Your task to perform on an android device: Open location settings Image 0: 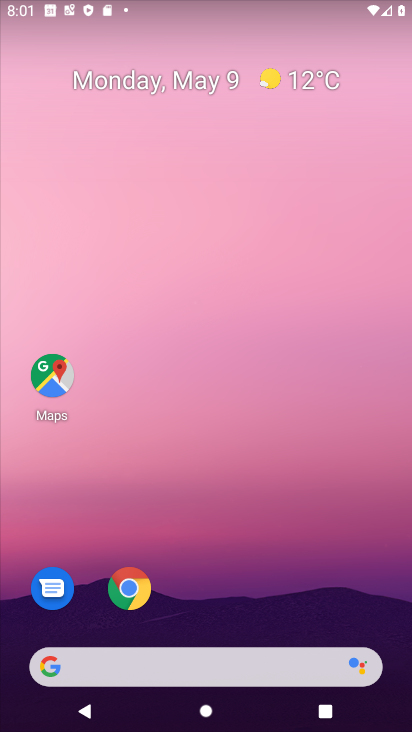
Step 0: drag from (185, 667) to (352, 83)
Your task to perform on an android device: Open location settings Image 1: 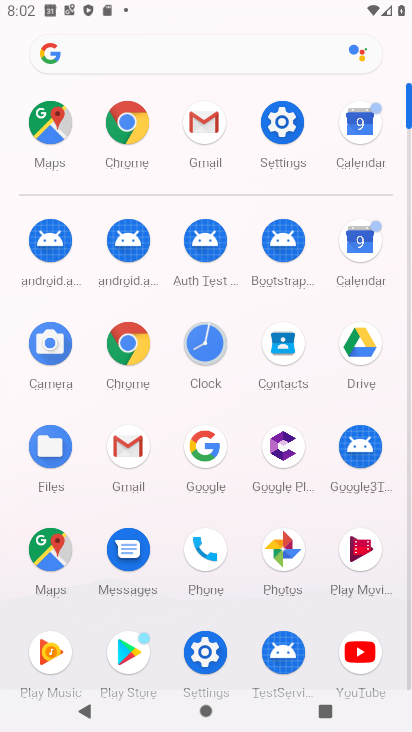
Step 1: click (284, 124)
Your task to perform on an android device: Open location settings Image 2: 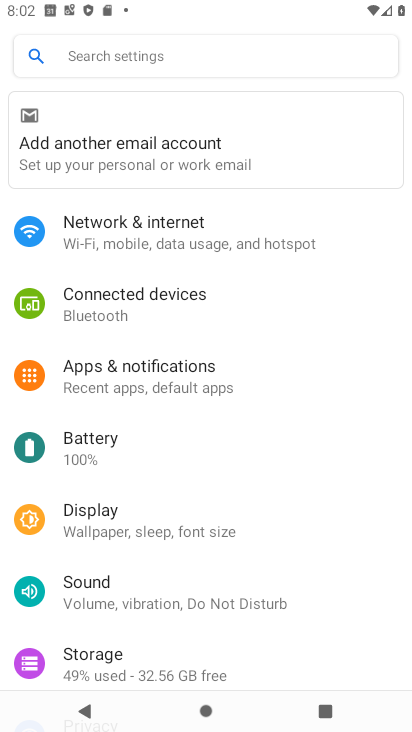
Step 2: drag from (179, 577) to (329, 189)
Your task to perform on an android device: Open location settings Image 3: 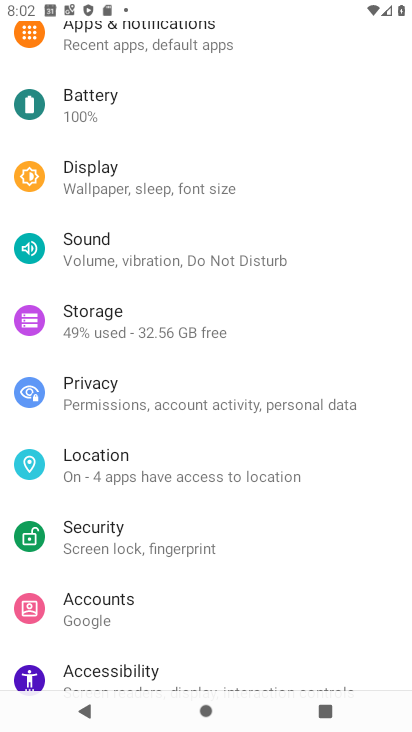
Step 3: click (112, 465)
Your task to perform on an android device: Open location settings Image 4: 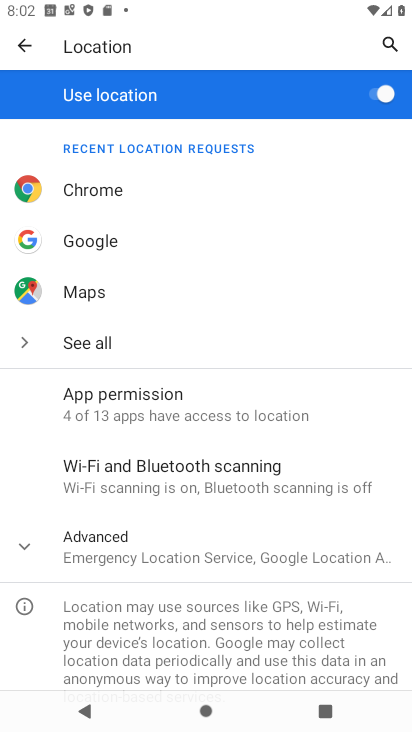
Step 4: task complete